Your task to perform on an android device: empty trash in google photos Image 0: 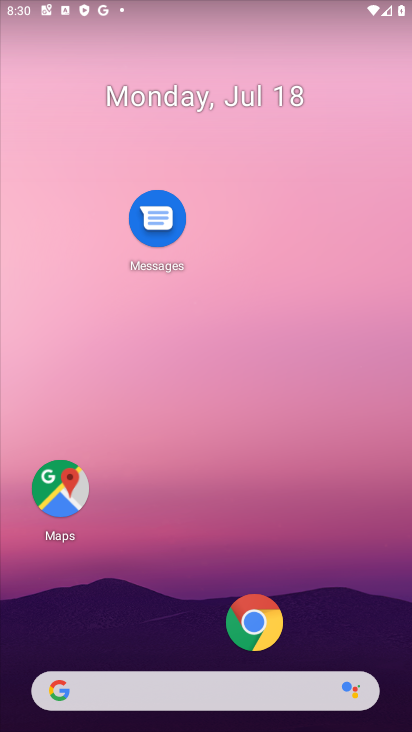
Step 0: drag from (152, 677) to (135, 201)
Your task to perform on an android device: empty trash in google photos Image 1: 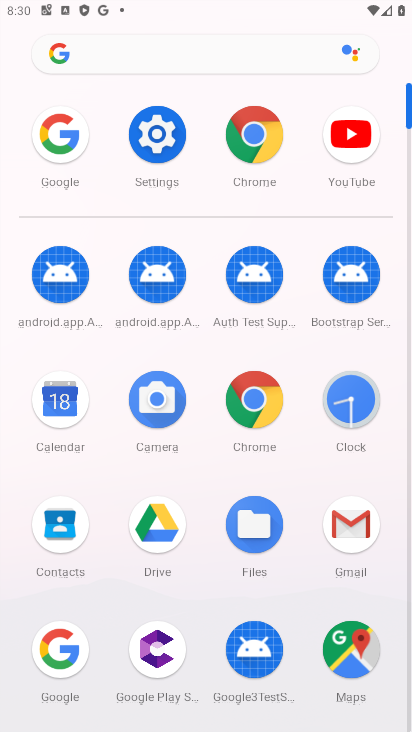
Step 1: drag from (178, 550) to (179, 186)
Your task to perform on an android device: empty trash in google photos Image 2: 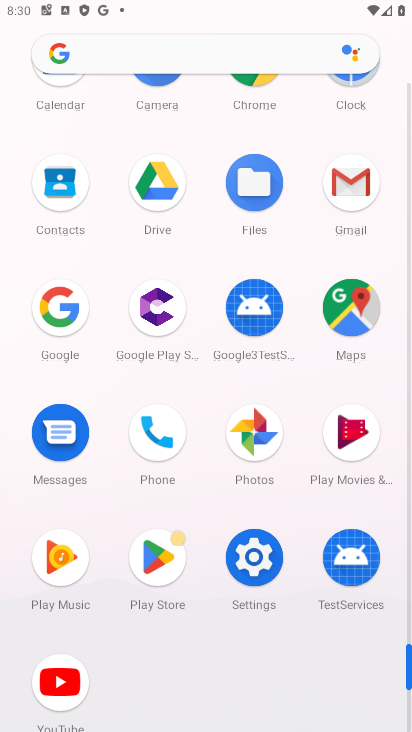
Step 2: click (249, 453)
Your task to perform on an android device: empty trash in google photos Image 3: 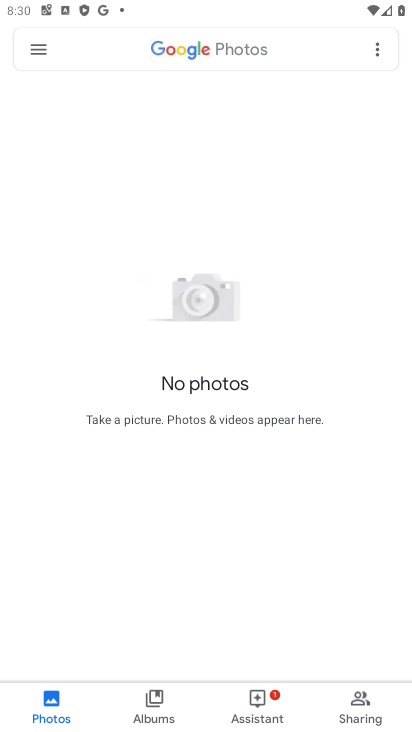
Step 3: click (32, 55)
Your task to perform on an android device: empty trash in google photos Image 4: 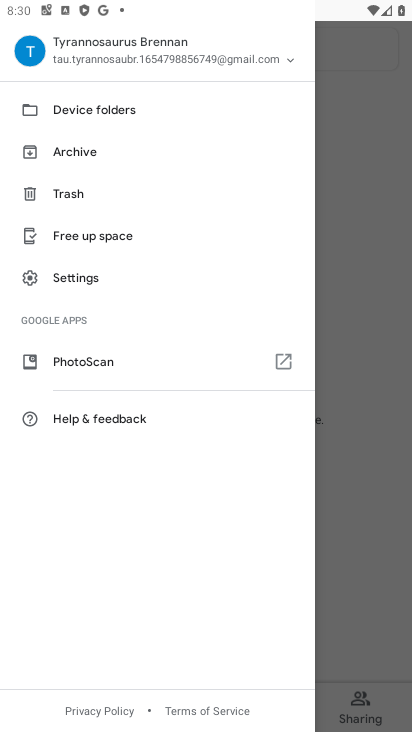
Step 4: click (79, 194)
Your task to perform on an android device: empty trash in google photos Image 5: 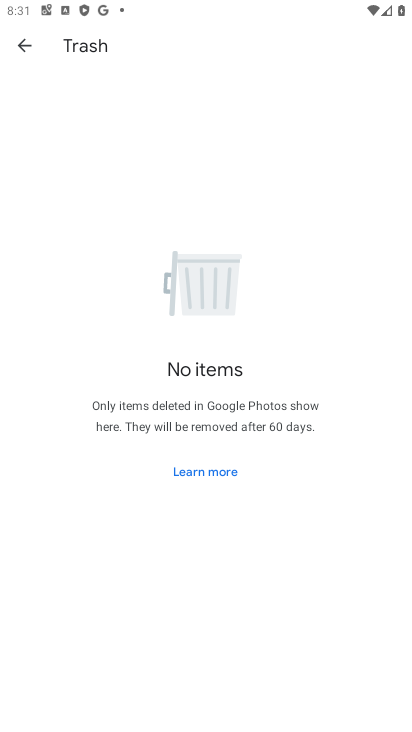
Step 5: task complete